Your task to perform on an android device: Open accessibility settings Image 0: 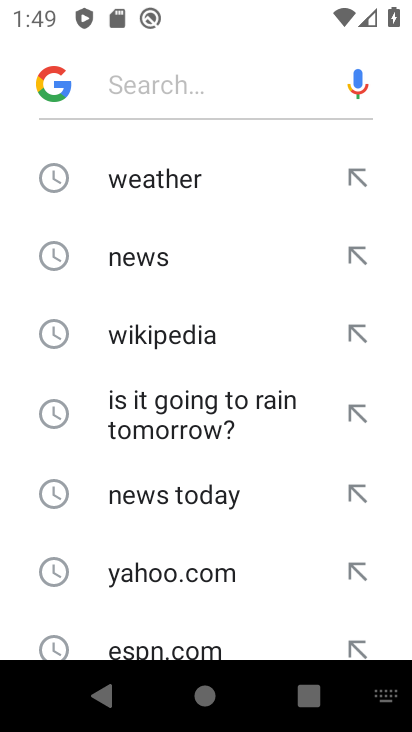
Step 0: press home button
Your task to perform on an android device: Open accessibility settings Image 1: 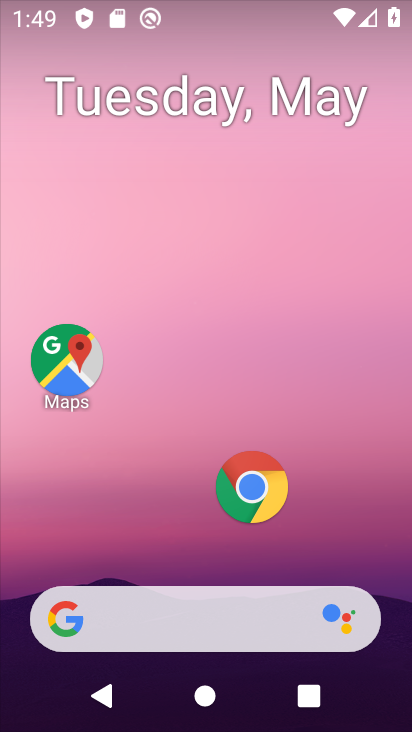
Step 1: drag from (231, 561) to (192, 186)
Your task to perform on an android device: Open accessibility settings Image 2: 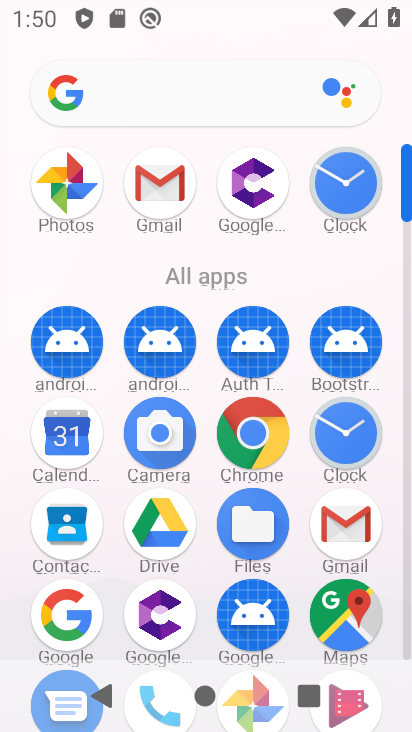
Step 2: drag from (197, 633) to (206, 424)
Your task to perform on an android device: Open accessibility settings Image 3: 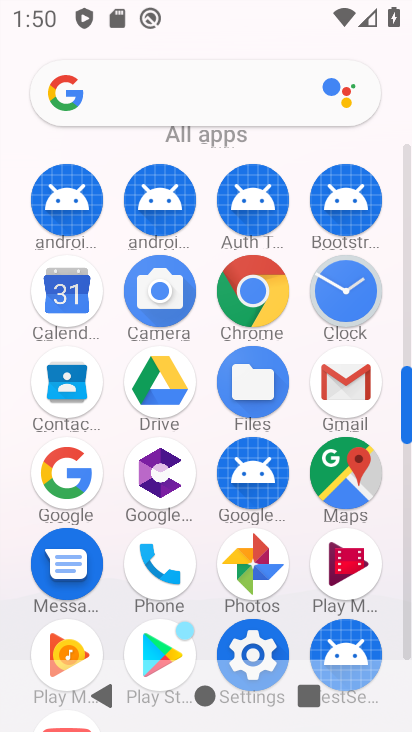
Step 3: click (256, 639)
Your task to perform on an android device: Open accessibility settings Image 4: 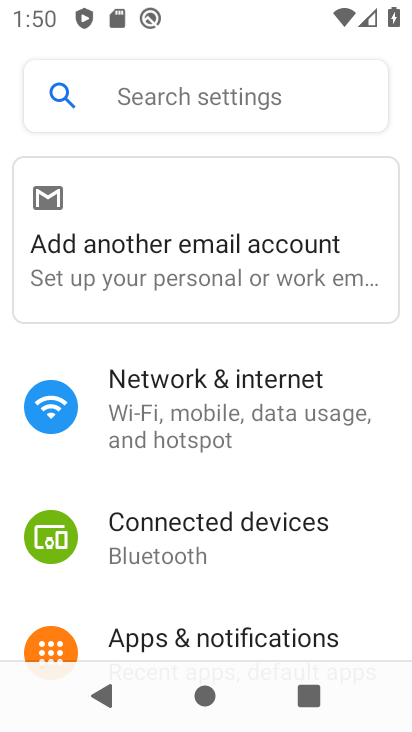
Step 4: drag from (229, 618) to (223, 360)
Your task to perform on an android device: Open accessibility settings Image 5: 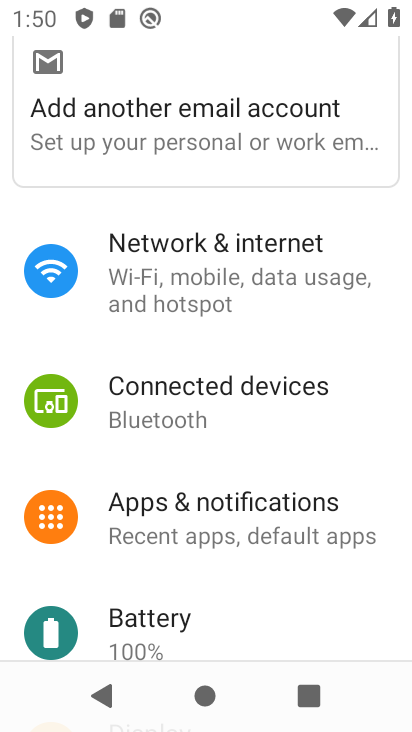
Step 5: drag from (227, 601) to (192, 281)
Your task to perform on an android device: Open accessibility settings Image 6: 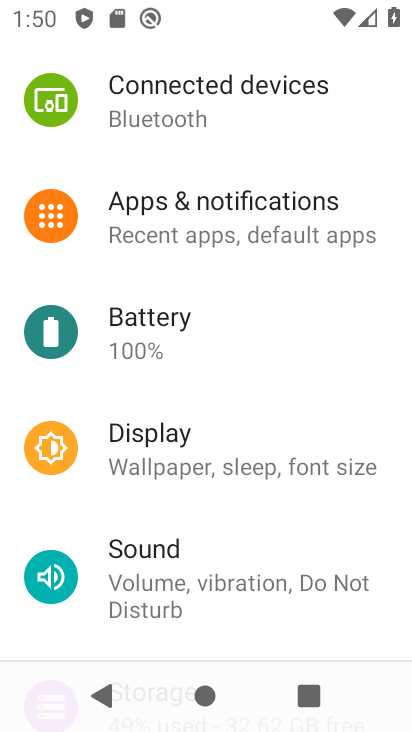
Step 6: drag from (202, 579) to (200, 286)
Your task to perform on an android device: Open accessibility settings Image 7: 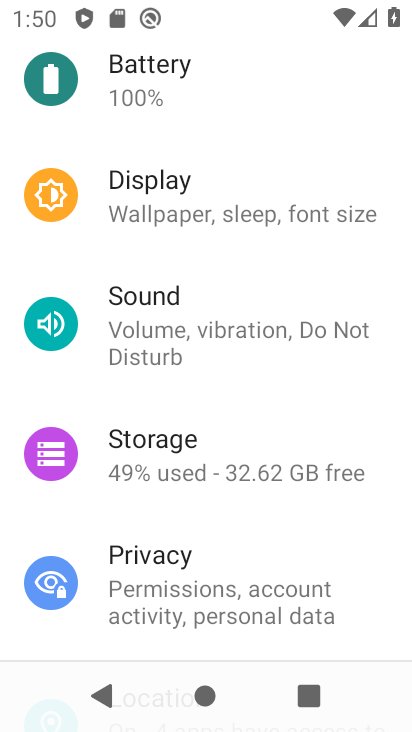
Step 7: drag from (197, 584) to (197, 333)
Your task to perform on an android device: Open accessibility settings Image 8: 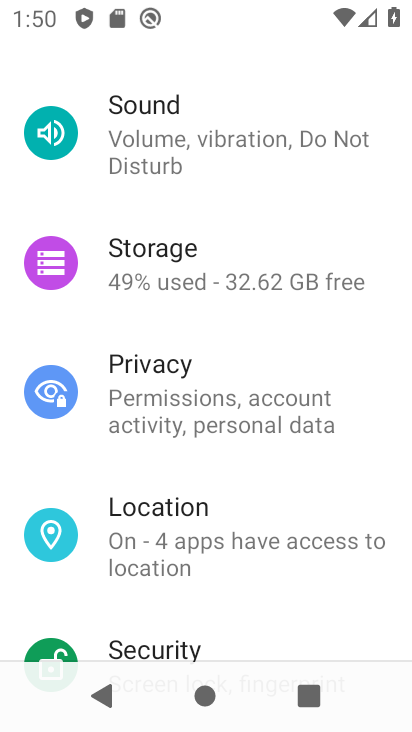
Step 8: drag from (238, 598) to (237, 370)
Your task to perform on an android device: Open accessibility settings Image 9: 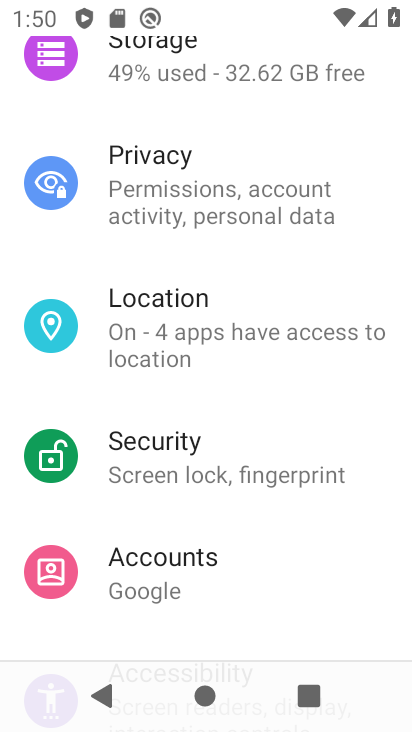
Step 9: drag from (243, 588) to (270, 369)
Your task to perform on an android device: Open accessibility settings Image 10: 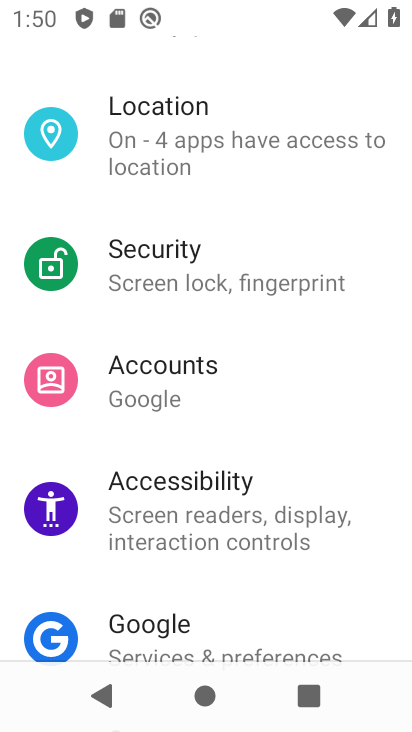
Step 10: click (219, 522)
Your task to perform on an android device: Open accessibility settings Image 11: 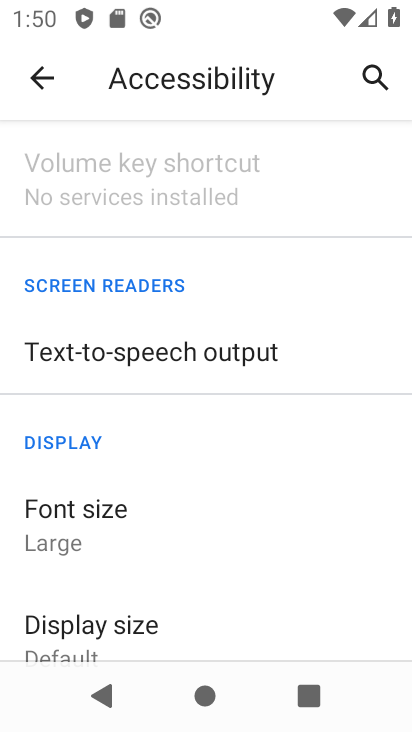
Step 11: task complete